Your task to perform on an android device: Clear the cart on walmart. Add "razer naga" to the cart on walmart Image 0: 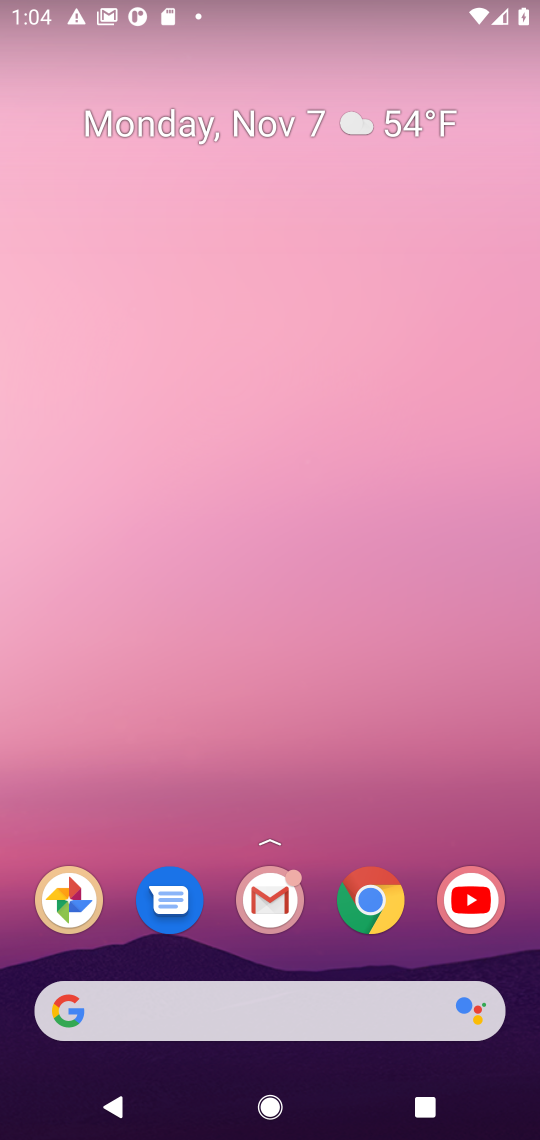
Step 0: click (360, 1003)
Your task to perform on an android device: Clear the cart on walmart. Add "razer naga" to the cart on walmart Image 1: 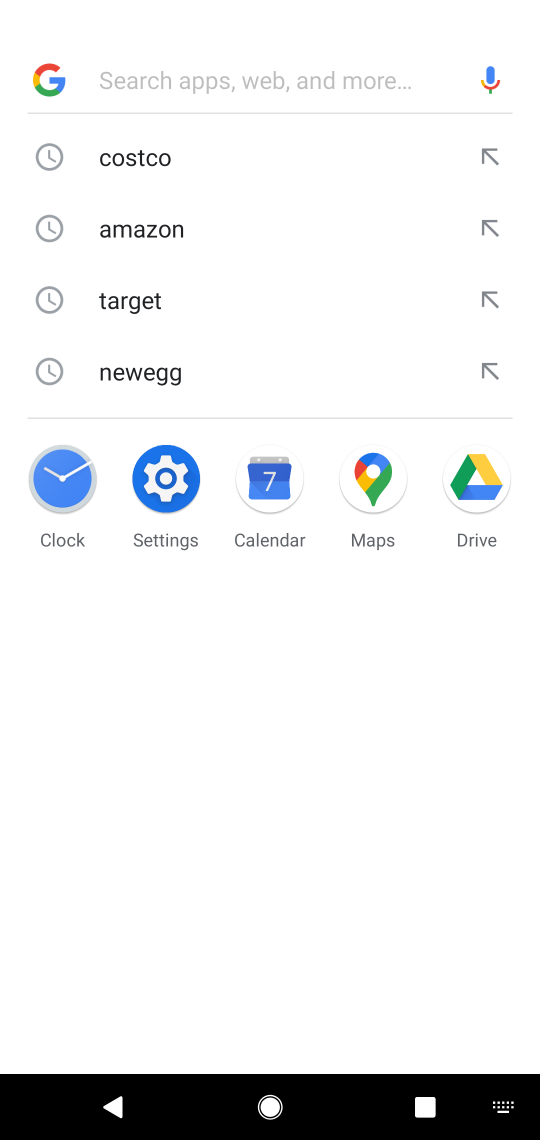
Step 1: type "walmart"
Your task to perform on an android device: Clear the cart on walmart. Add "razer naga" to the cart on walmart Image 2: 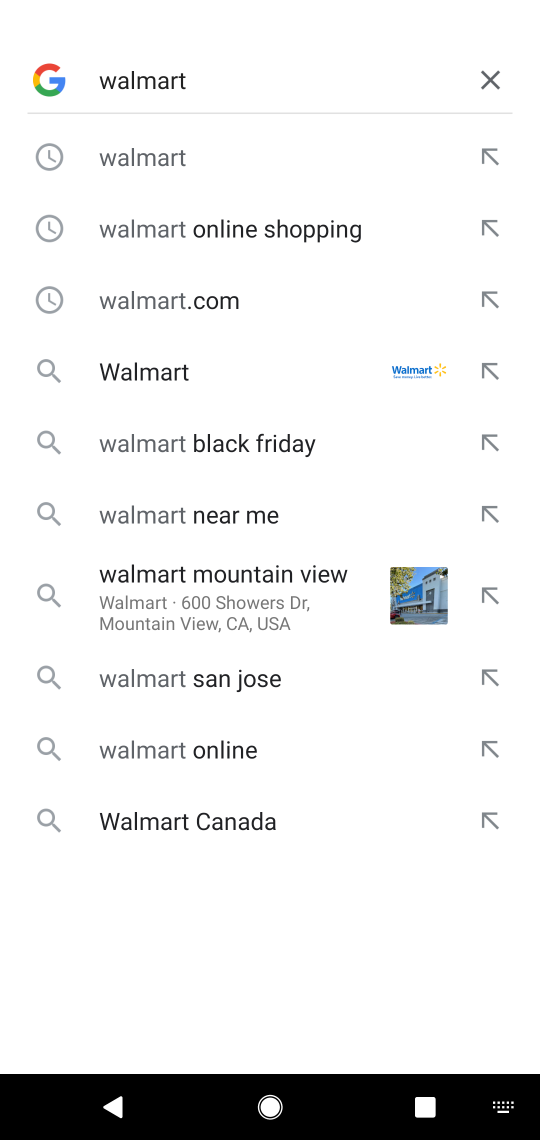
Step 2: click (150, 173)
Your task to perform on an android device: Clear the cart on walmart. Add "razer naga" to the cart on walmart Image 3: 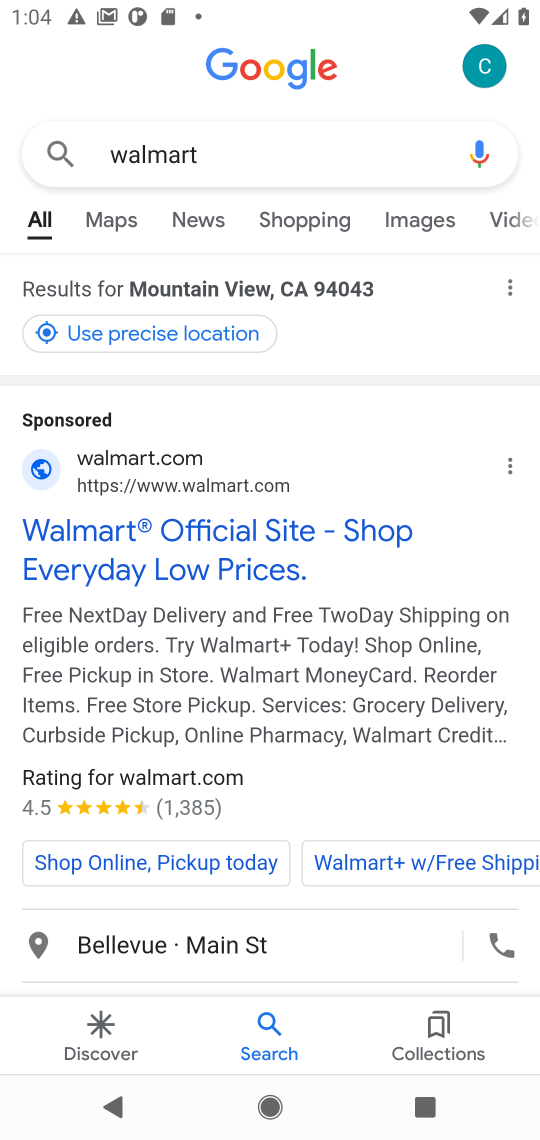
Step 3: click (276, 528)
Your task to perform on an android device: Clear the cart on walmart. Add "razer naga" to the cart on walmart Image 4: 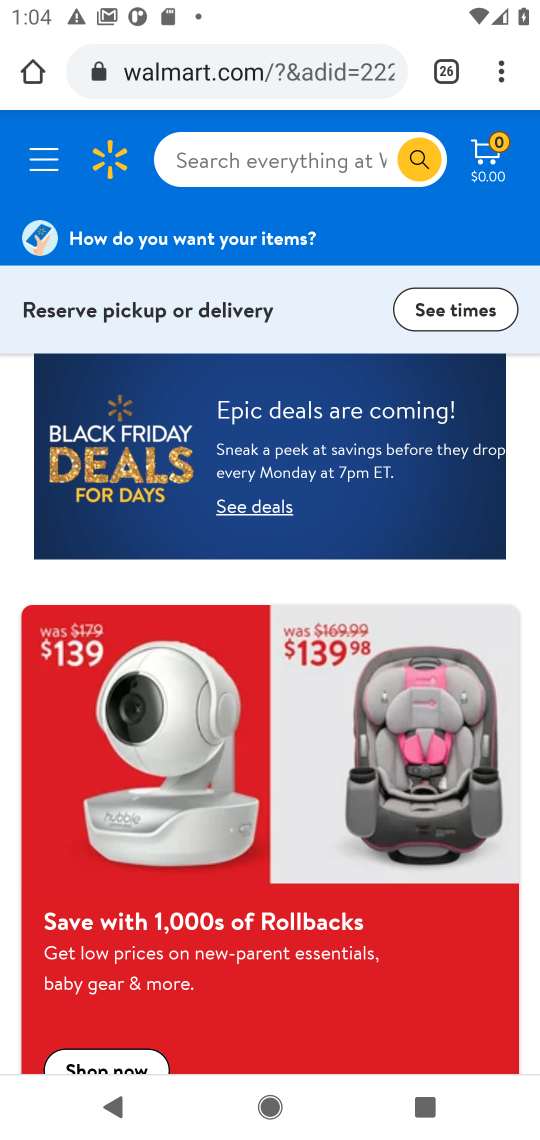
Step 4: task complete